Your task to perform on an android device: install app "ColorNote Notepad Notes" Image 0: 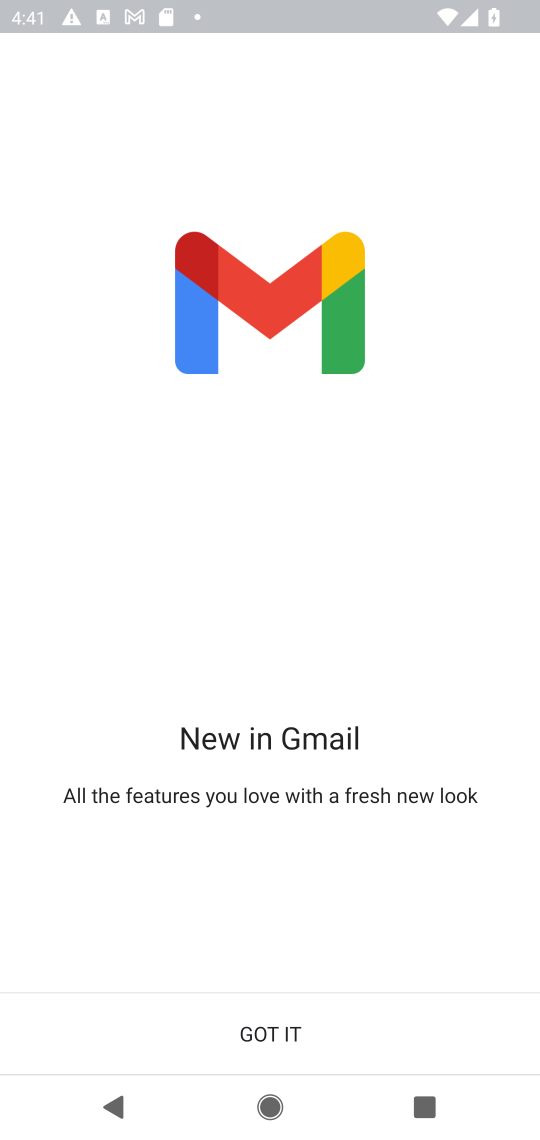
Step 0: press home button
Your task to perform on an android device: install app "ColorNote Notepad Notes" Image 1: 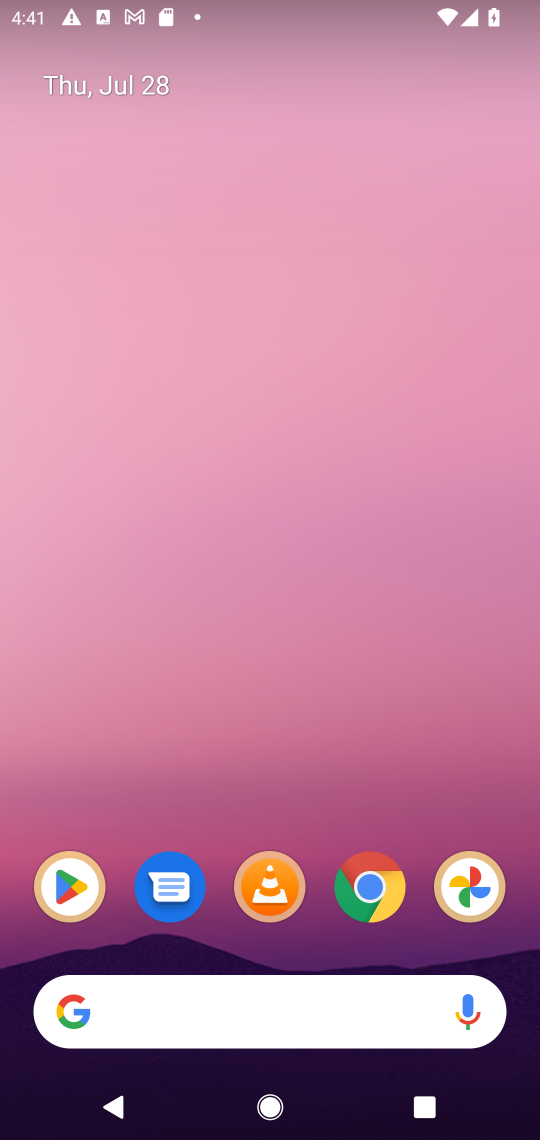
Step 1: click (76, 900)
Your task to perform on an android device: install app "ColorNote Notepad Notes" Image 2: 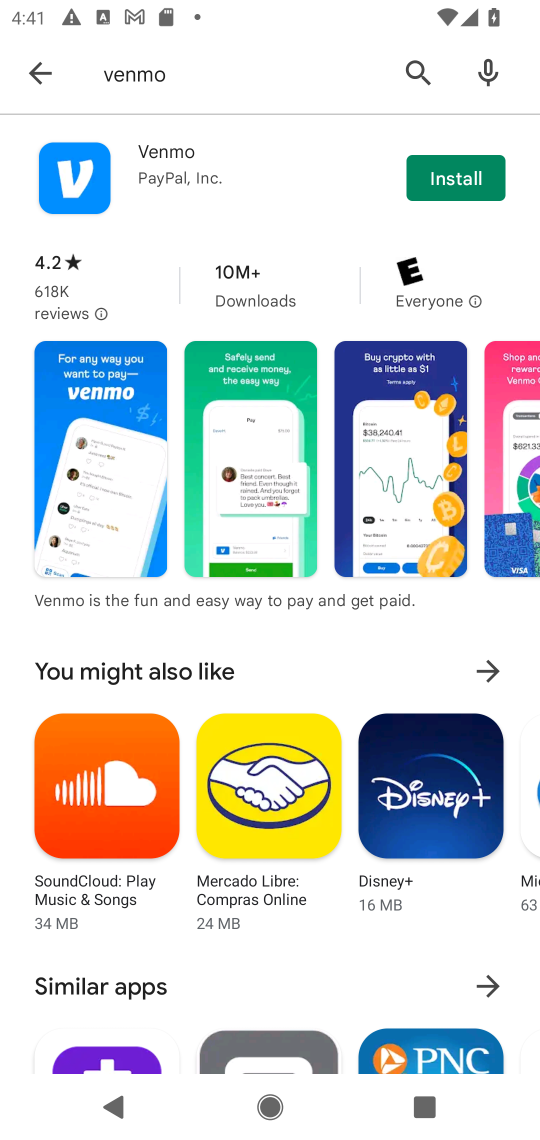
Step 2: click (189, 89)
Your task to perform on an android device: install app "ColorNote Notepad Notes" Image 3: 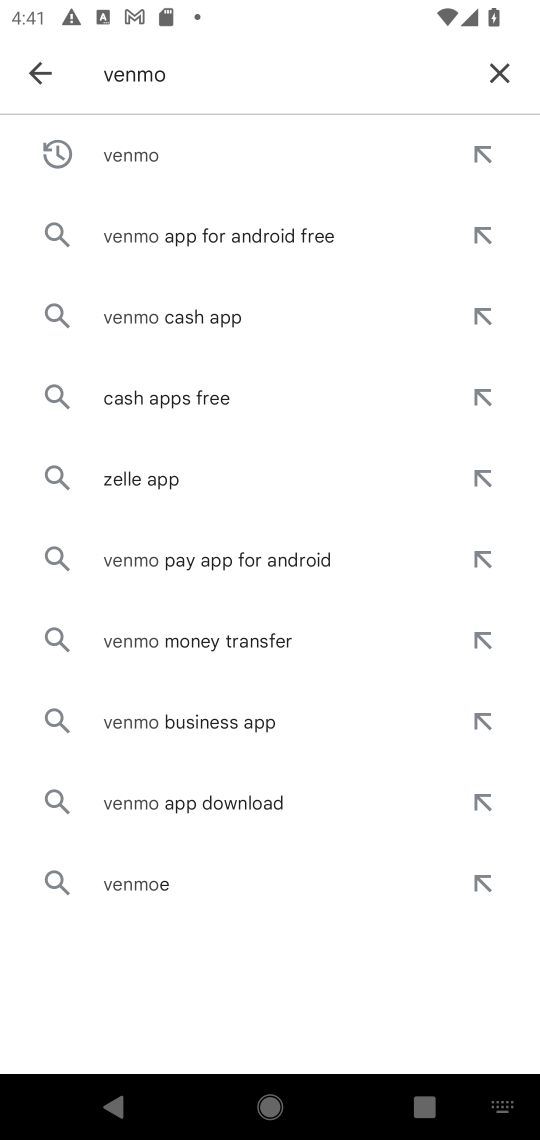
Step 3: click (488, 76)
Your task to perform on an android device: install app "ColorNote Notepad Notes" Image 4: 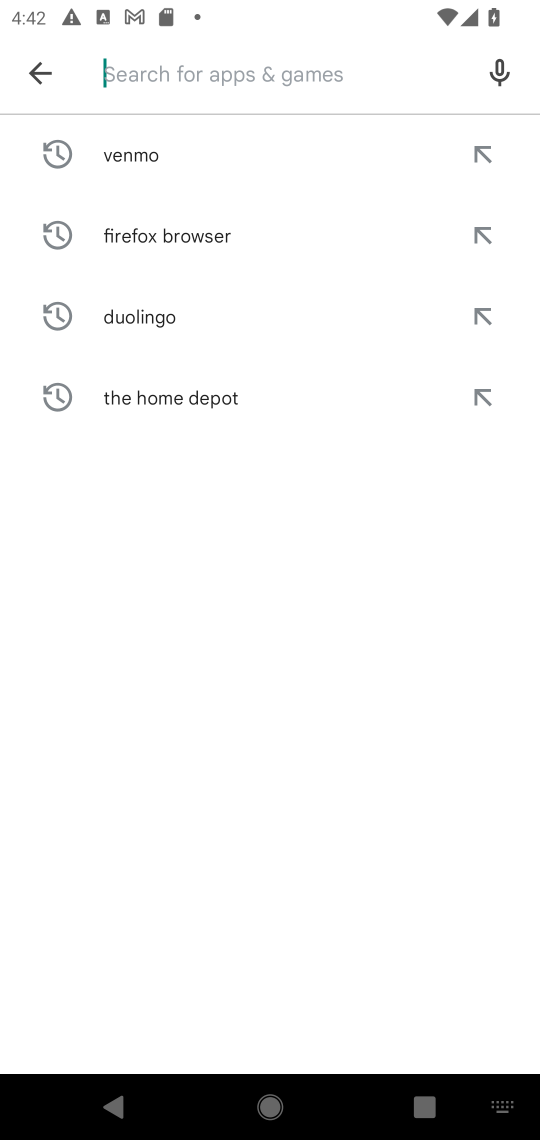
Step 4: type "colornote Notepad Notes"
Your task to perform on an android device: install app "ColorNote Notepad Notes" Image 5: 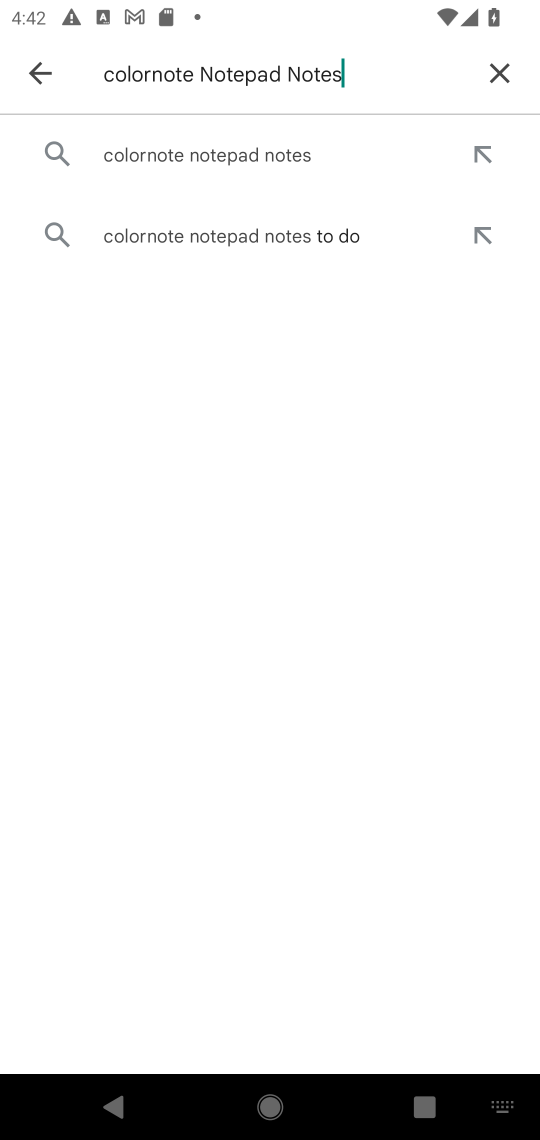
Step 5: click (212, 166)
Your task to perform on an android device: install app "ColorNote Notepad Notes" Image 6: 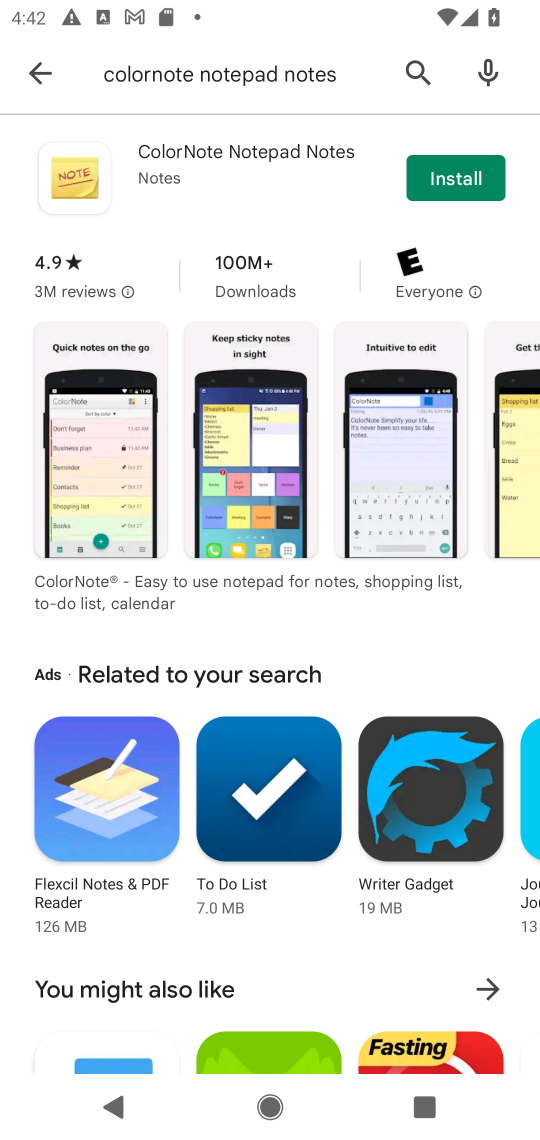
Step 6: click (467, 177)
Your task to perform on an android device: install app "ColorNote Notepad Notes" Image 7: 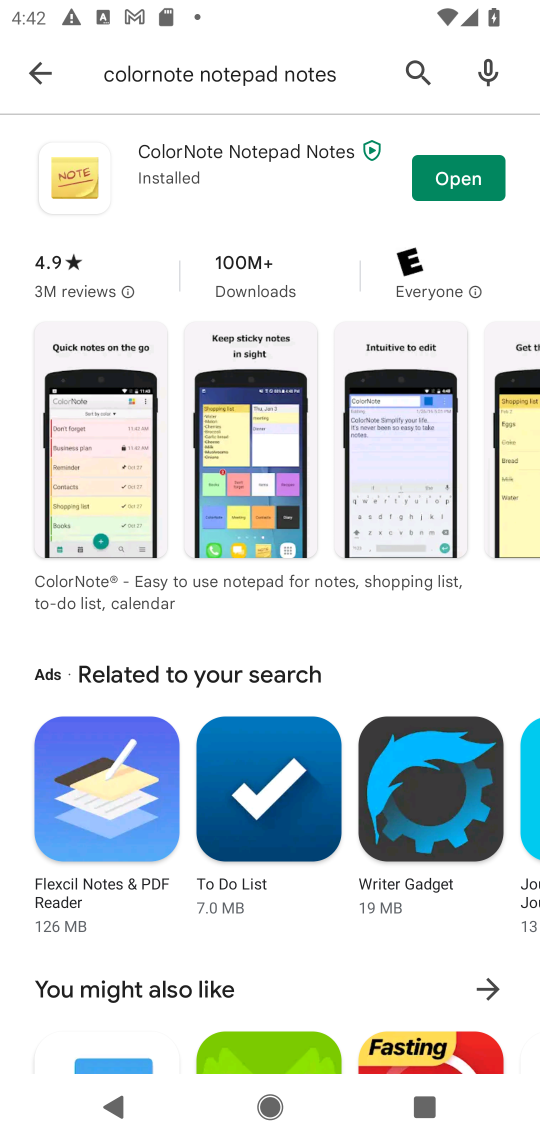
Step 7: task complete